Your task to perform on an android device: change the upload size in google photos Image 0: 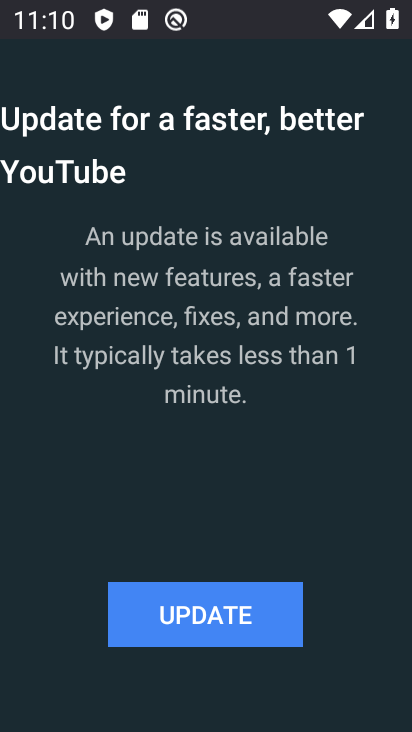
Step 0: drag from (202, 581) to (76, 250)
Your task to perform on an android device: change the upload size in google photos Image 1: 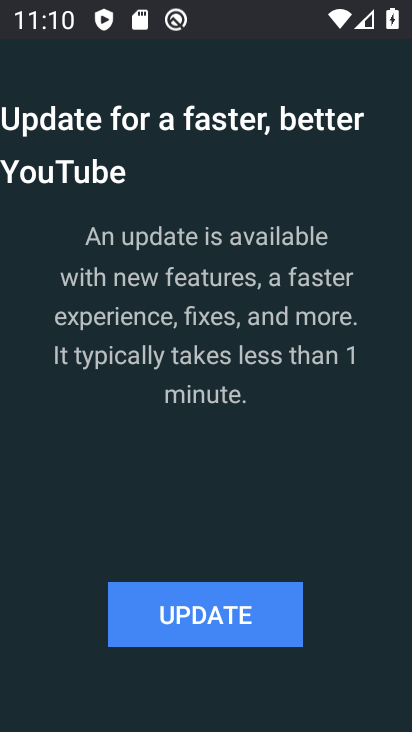
Step 1: press home button
Your task to perform on an android device: change the upload size in google photos Image 2: 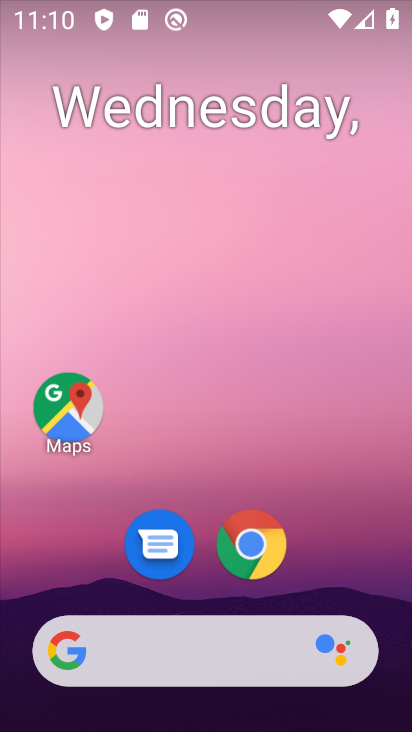
Step 2: drag from (194, 600) to (228, 50)
Your task to perform on an android device: change the upload size in google photos Image 3: 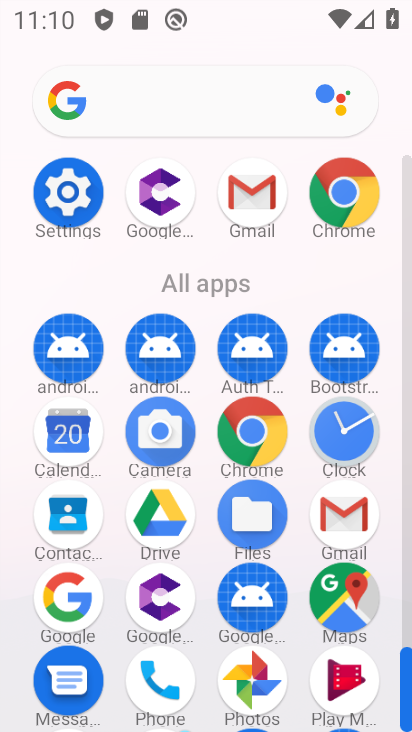
Step 3: click (230, 668)
Your task to perform on an android device: change the upload size in google photos Image 4: 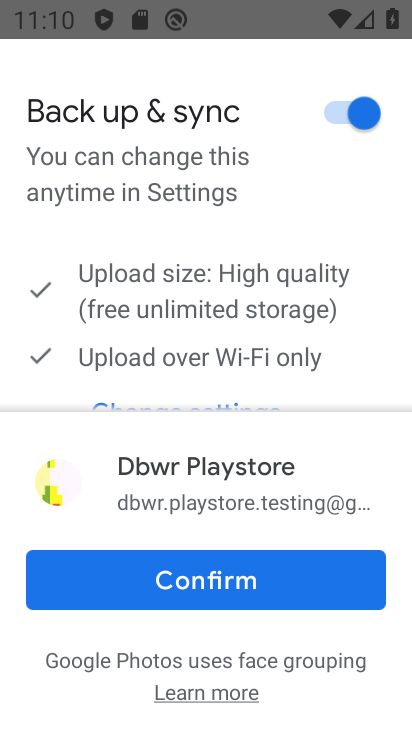
Step 4: click (235, 581)
Your task to perform on an android device: change the upload size in google photos Image 5: 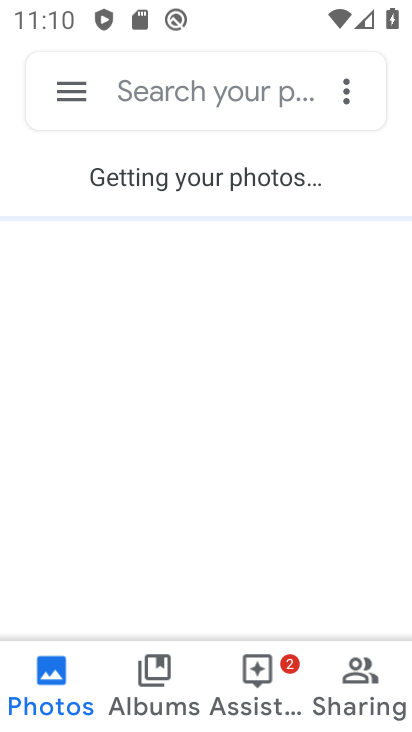
Step 5: click (60, 85)
Your task to perform on an android device: change the upload size in google photos Image 6: 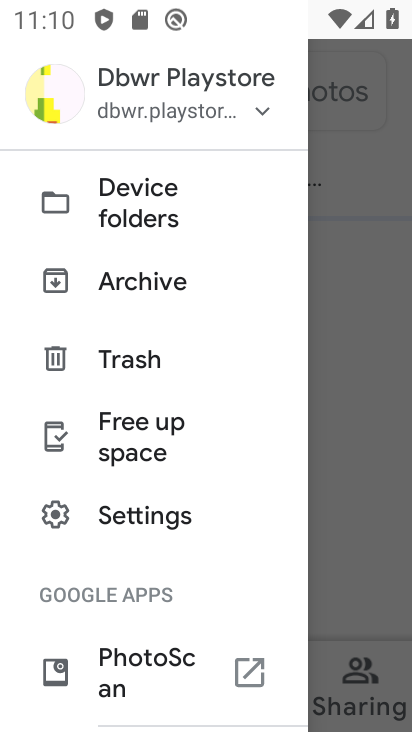
Step 6: click (158, 515)
Your task to perform on an android device: change the upload size in google photos Image 7: 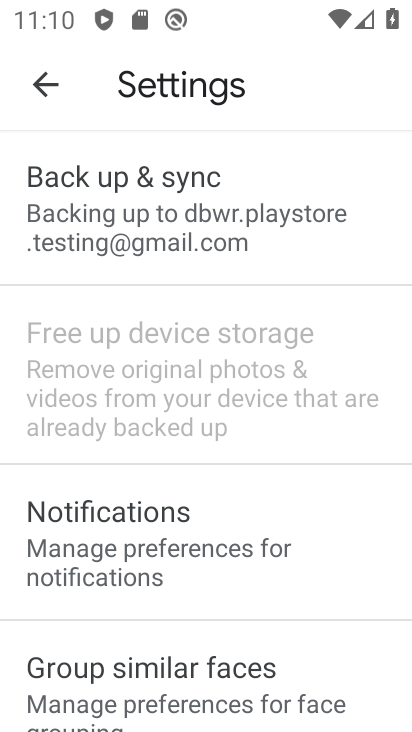
Step 7: drag from (181, 532) to (161, 177)
Your task to perform on an android device: change the upload size in google photos Image 8: 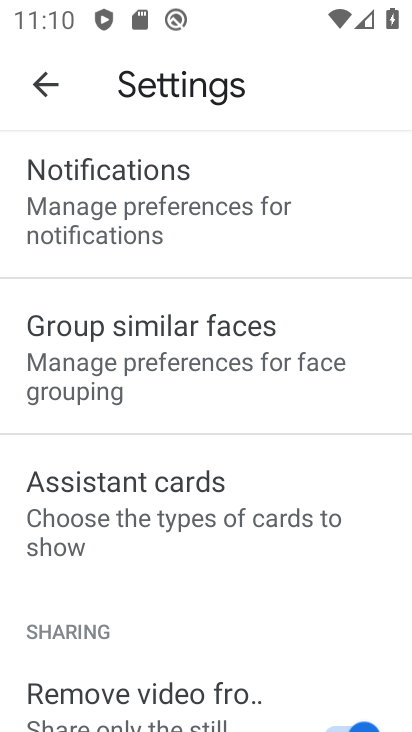
Step 8: drag from (207, 645) to (187, 274)
Your task to perform on an android device: change the upload size in google photos Image 9: 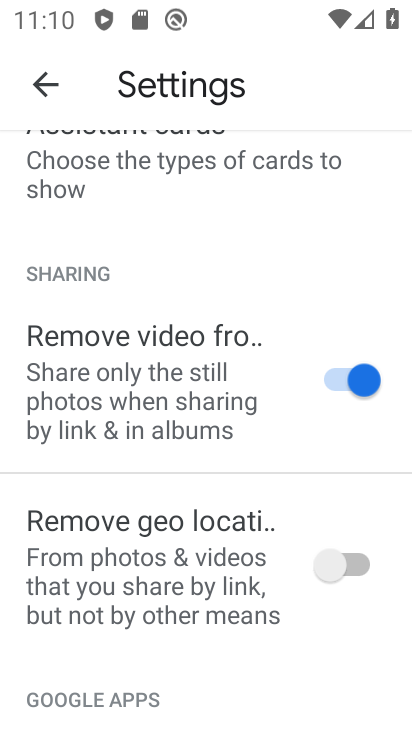
Step 9: drag from (189, 309) to (183, 725)
Your task to perform on an android device: change the upload size in google photos Image 10: 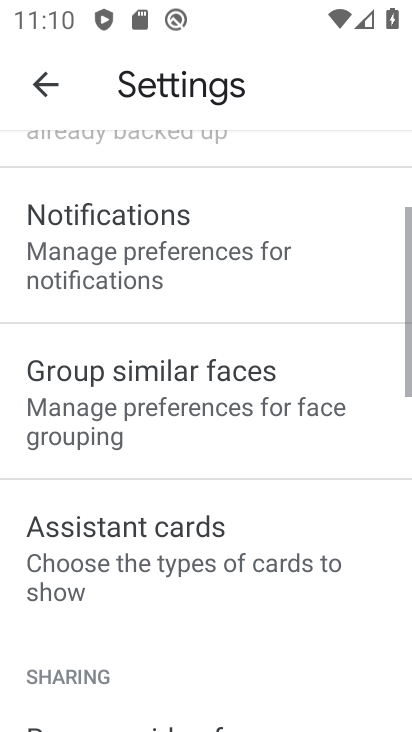
Step 10: drag from (180, 250) to (172, 607)
Your task to perform on an android device: change the upload size in google photos Image 11: 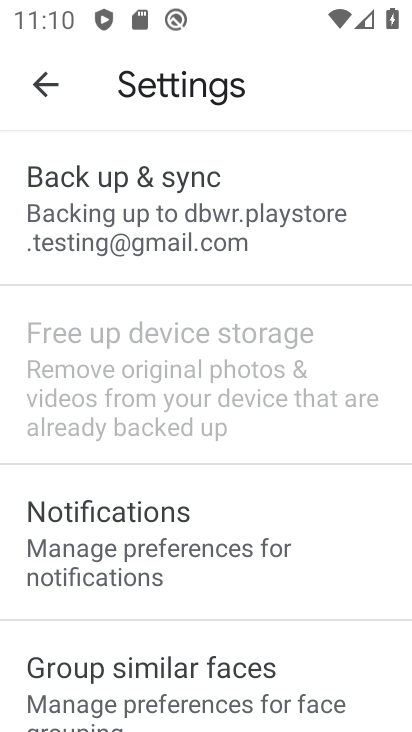
Step 11: click (191, 235)
Your task to perform on an android device: change the upload size in google photos Image 12: 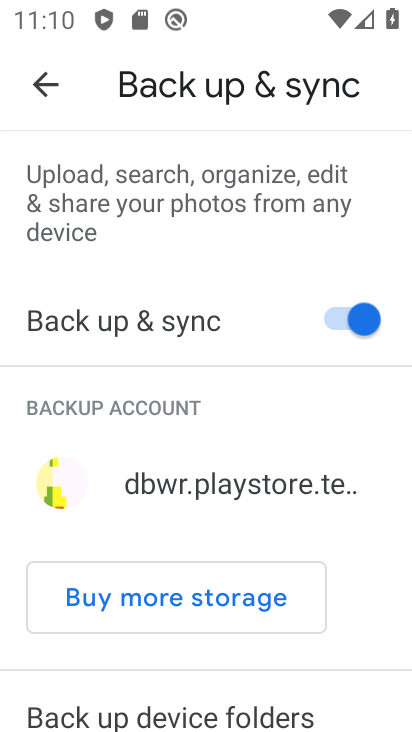
Step 12: drag from (202, 504) to (179, 171)
Your task to perform on an android device: change the upload size in google photos Image 13: 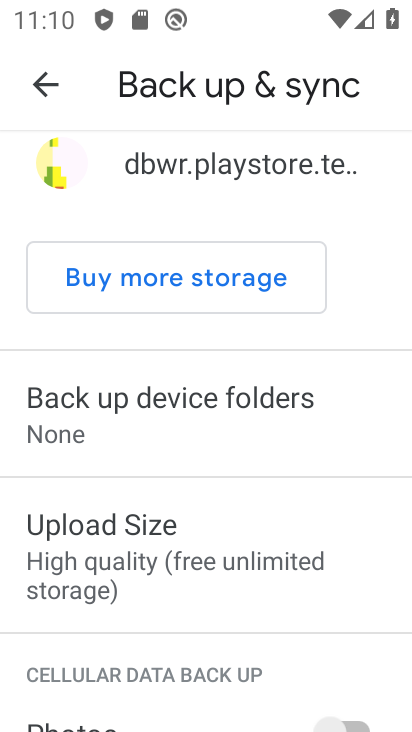
Step 13: click (171, 547)
Your task to perform on an android device: change the upload size in google photos Image 14: 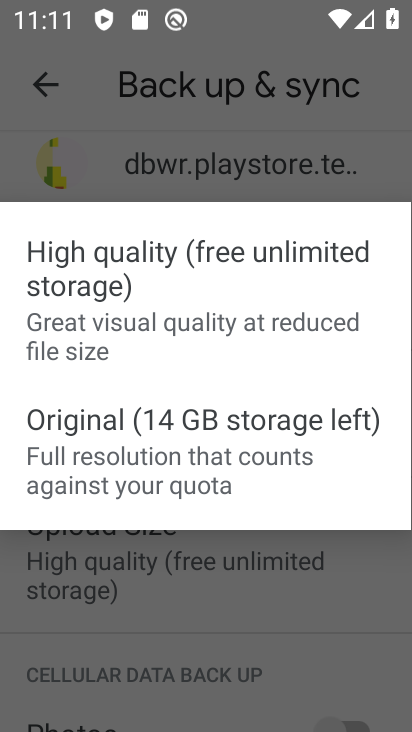
Step 14: click (175, 437)
Your task to perform on an android device: change the upload size in google photos Image 15: 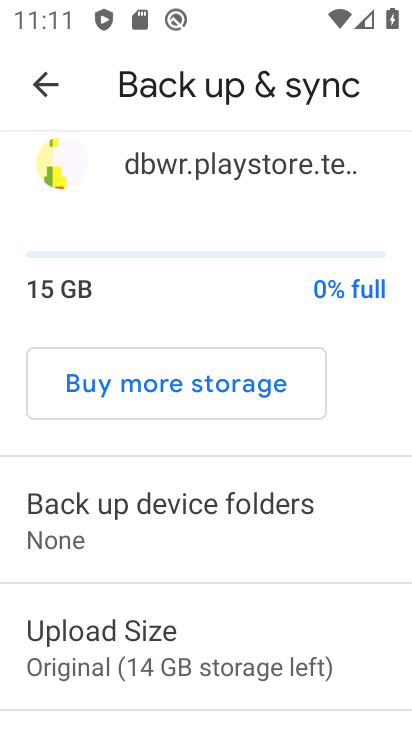
Step 15: task complete